Your task to perform on an android device: open app "YouTube Kids" (install if not already installed) Image 0: 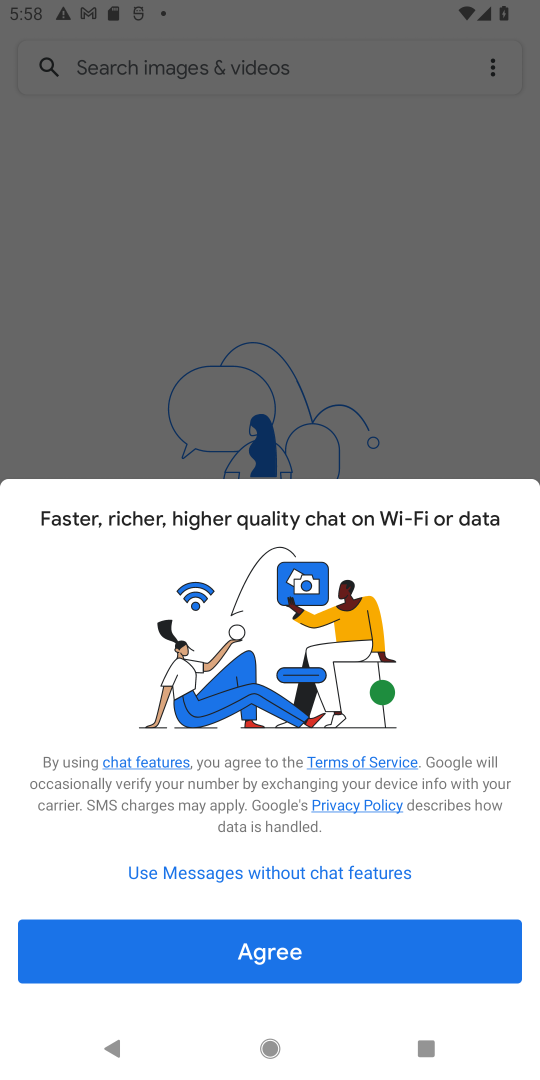
Step 0: press home button
Your task to perform on an android device: open app "YouTube Kids" (install if not already installed) Image 1: 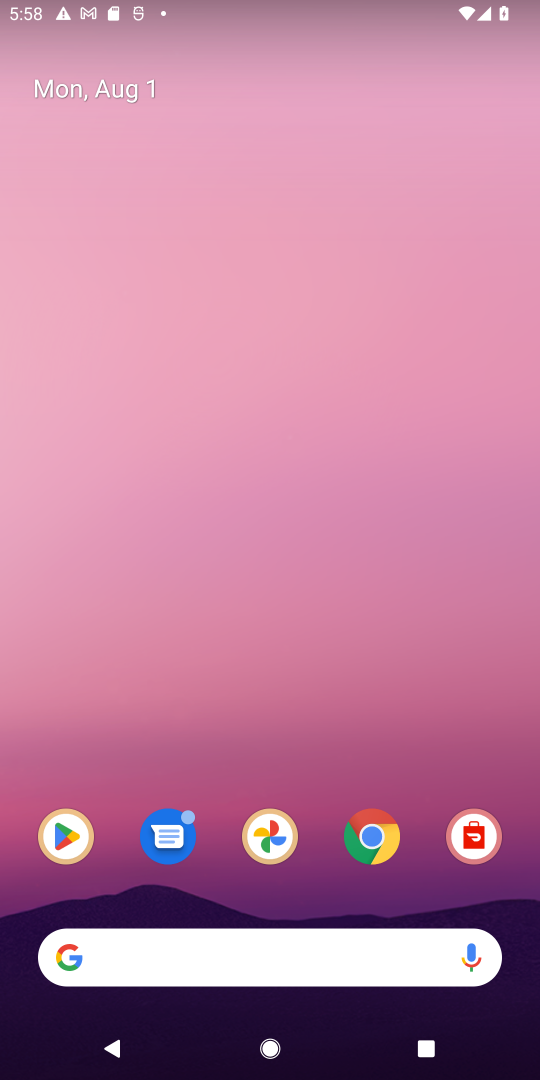
Step 1: click (59, 836)
Your task to perform on an android device: open app "YouTube Kids" (install if not already installed) Image 2: 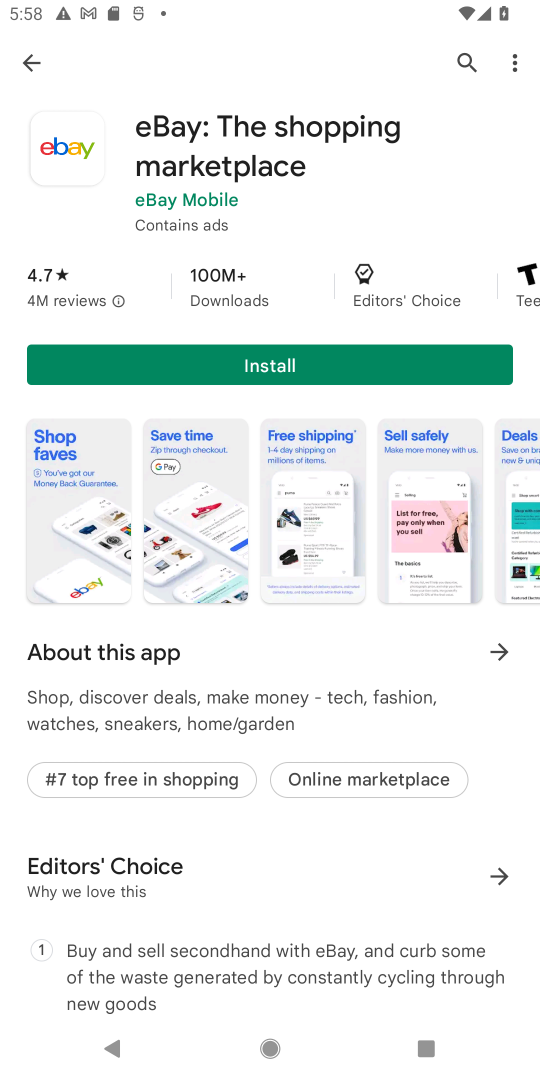
Step 2: click (461, 57)
Your task to perform on an android device: open app "YouTube Kids" (install if not already installed) Image 3: 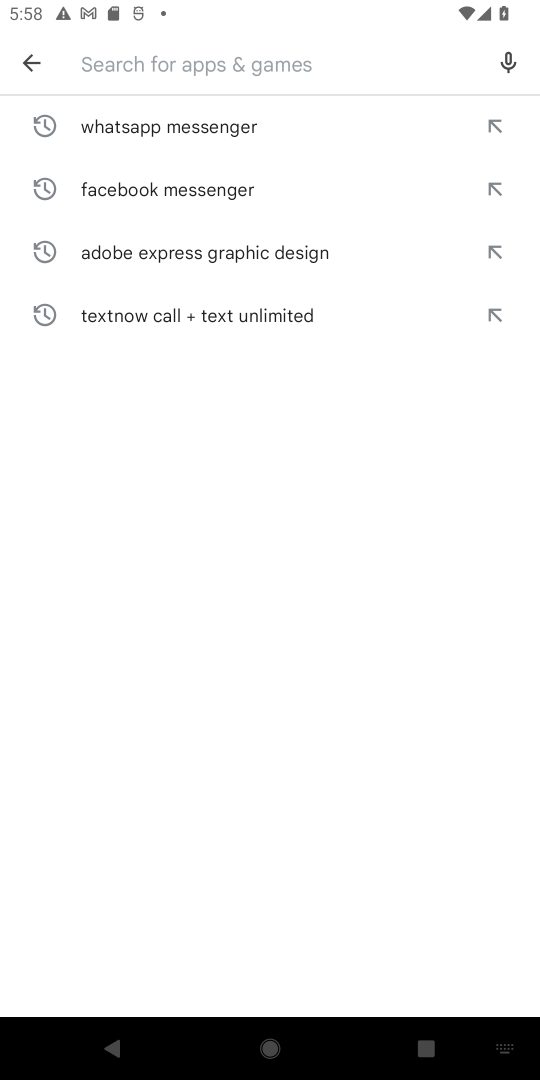
Step 3: type "YouTube Kids"
Your task to perform on an android device: open app "YouTube Kids" (install if not already installed) Image 4: 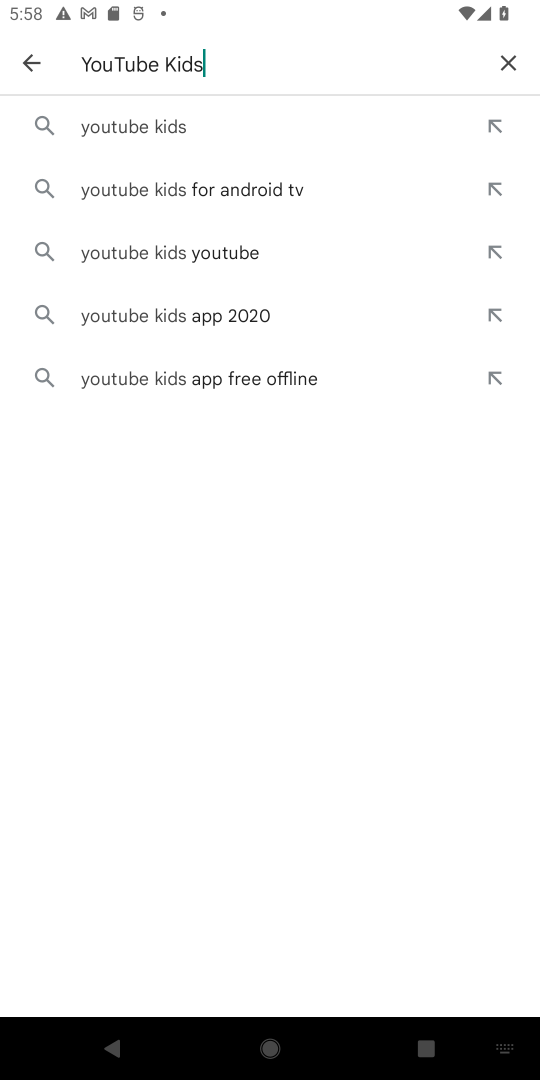
Step 4: click (167, 123)
Your task to perform on an android device: open app "YouTube Kids" (install if not already installed) Image 5: 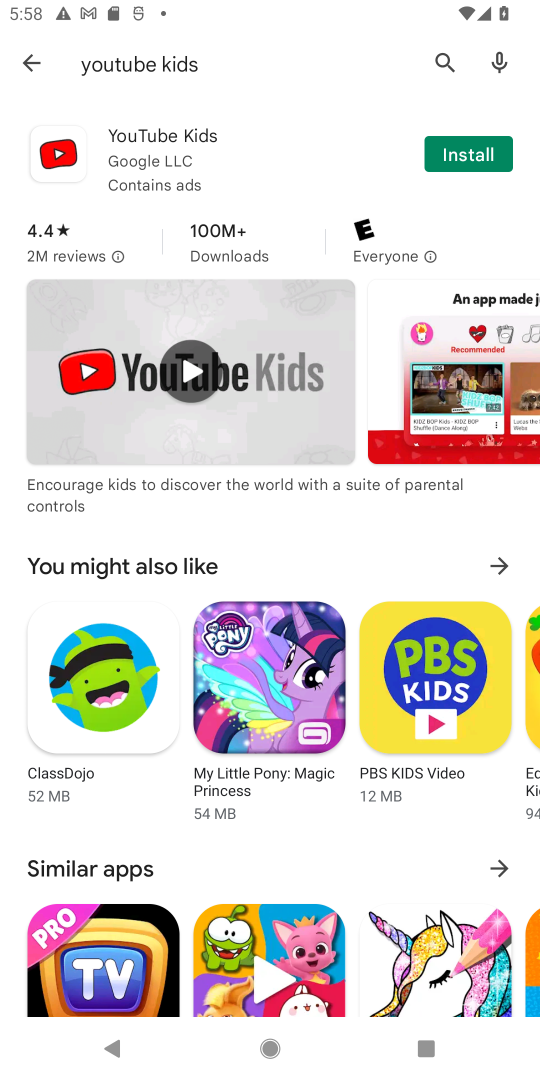
Step 5: click (477, 150)
Your task to perform on an android device: open app "YouTube Kids" (install if not already installed) Image 6: 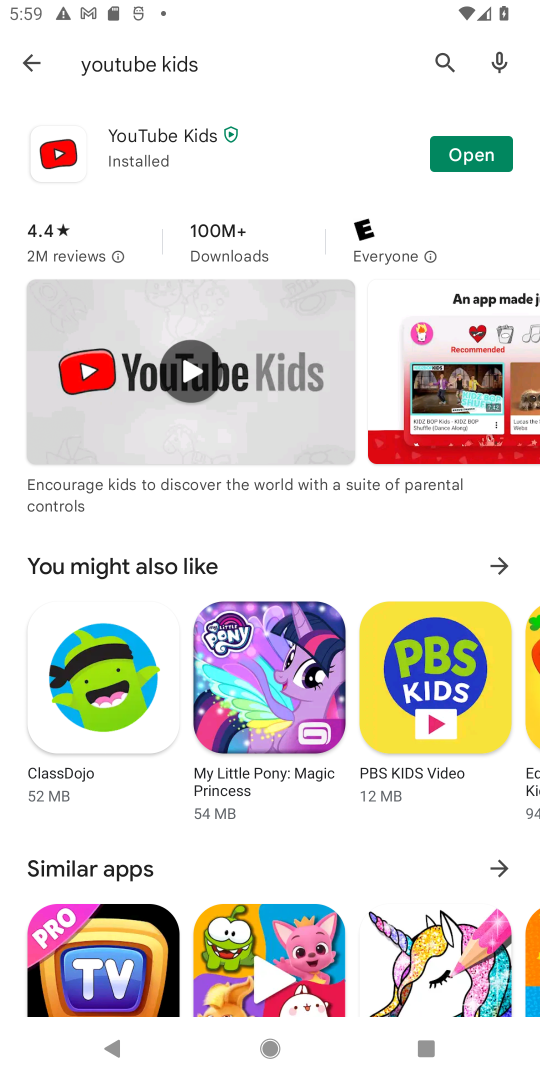
Step 6: click (470, 146)
Your task to perform on an android device: open app "YouTube Kids" (install if not already installed) Image 7: 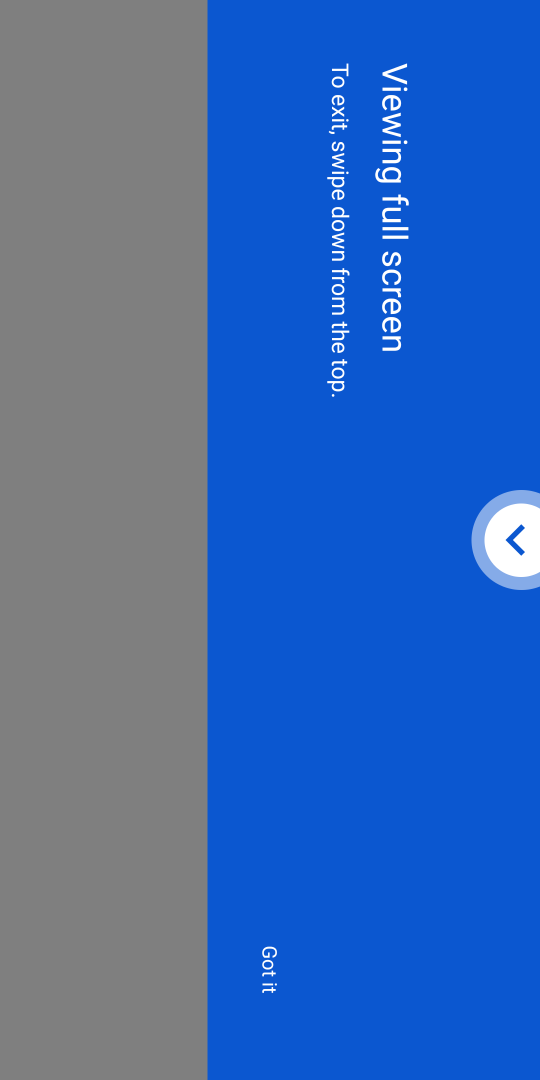
Step 7: task complete